Your task to perform on an android device: visit the assistant section in the google photos Image 0: 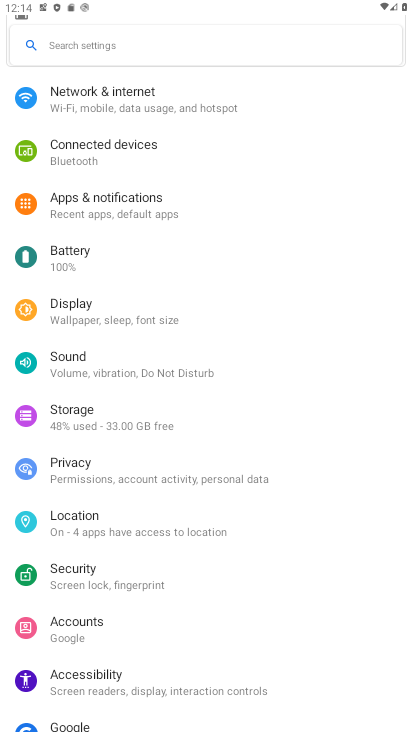
Step 0: press home button
Your task to perform on an android device: visit the assistant section in the google photos Image 1: 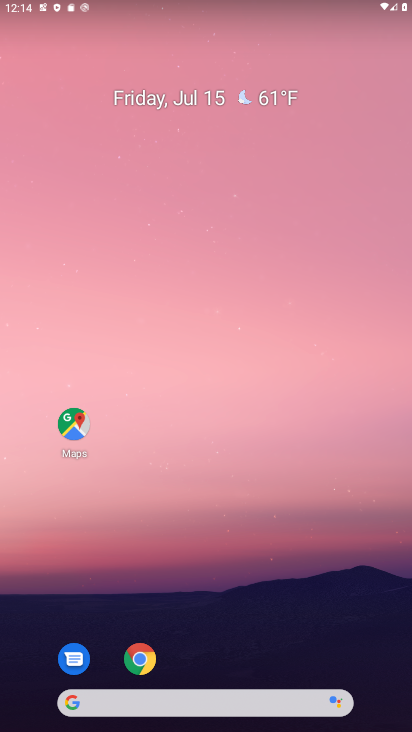
Step 1: drag from (178, 704) to (226, 329)
Your task to perform on an android device: visit the assistant section in the google photos Image 2: 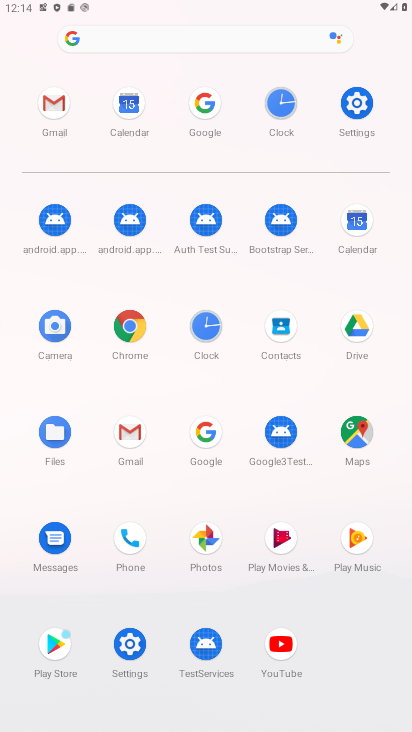
Step 2: click (204, 538)
Your task to perform on an android device: visit the assistant section in the google photos Image 3: 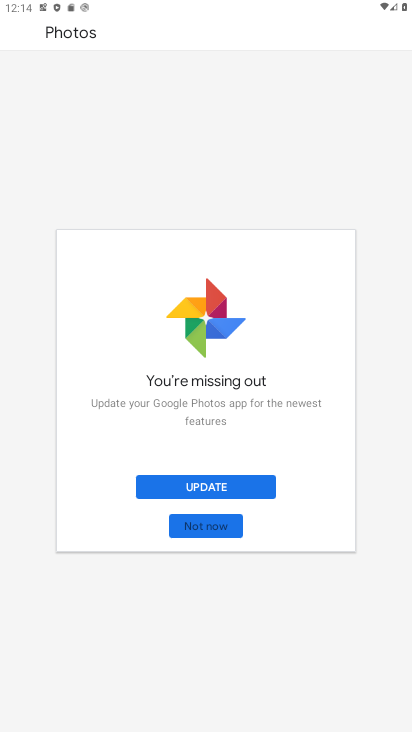
Step 3: click (203, 484)
Your task to perform on an android device: visit the assistant section in the google photos Image 4: 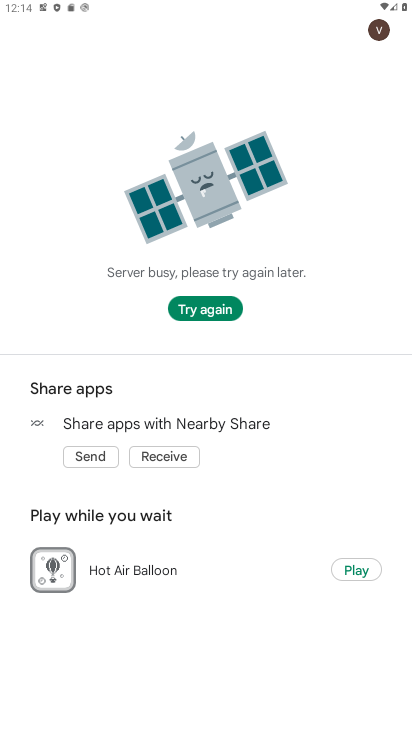
Step 4: click (204, 312)
Your task to perform on an android device: visit the assistant section in the google photos Image 5: 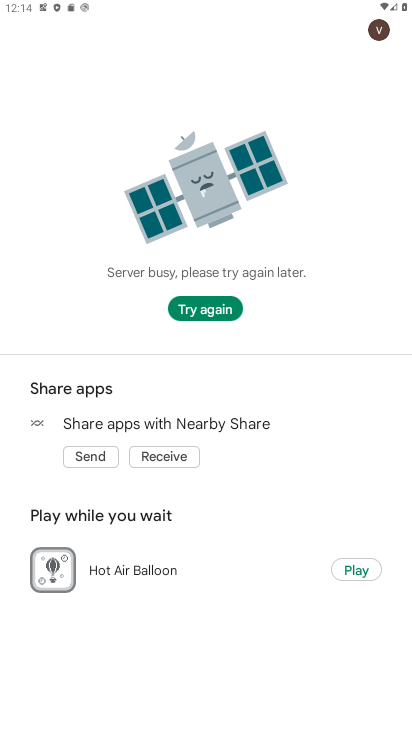
Step 5: click (204, 312)
Your task to perform on an android device: visit the assistant section in the google photos Image 6: 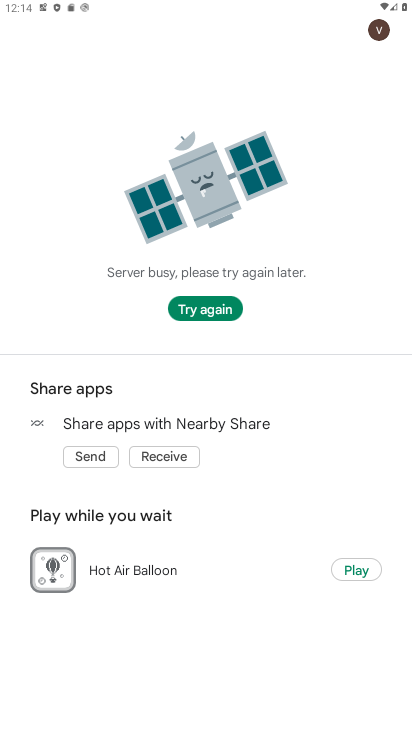
Step 6: task complete